Your task to perform on an android device: Search for dell alienware on bestbuy.com, select the first entry, and add it to the cart. Image 0: 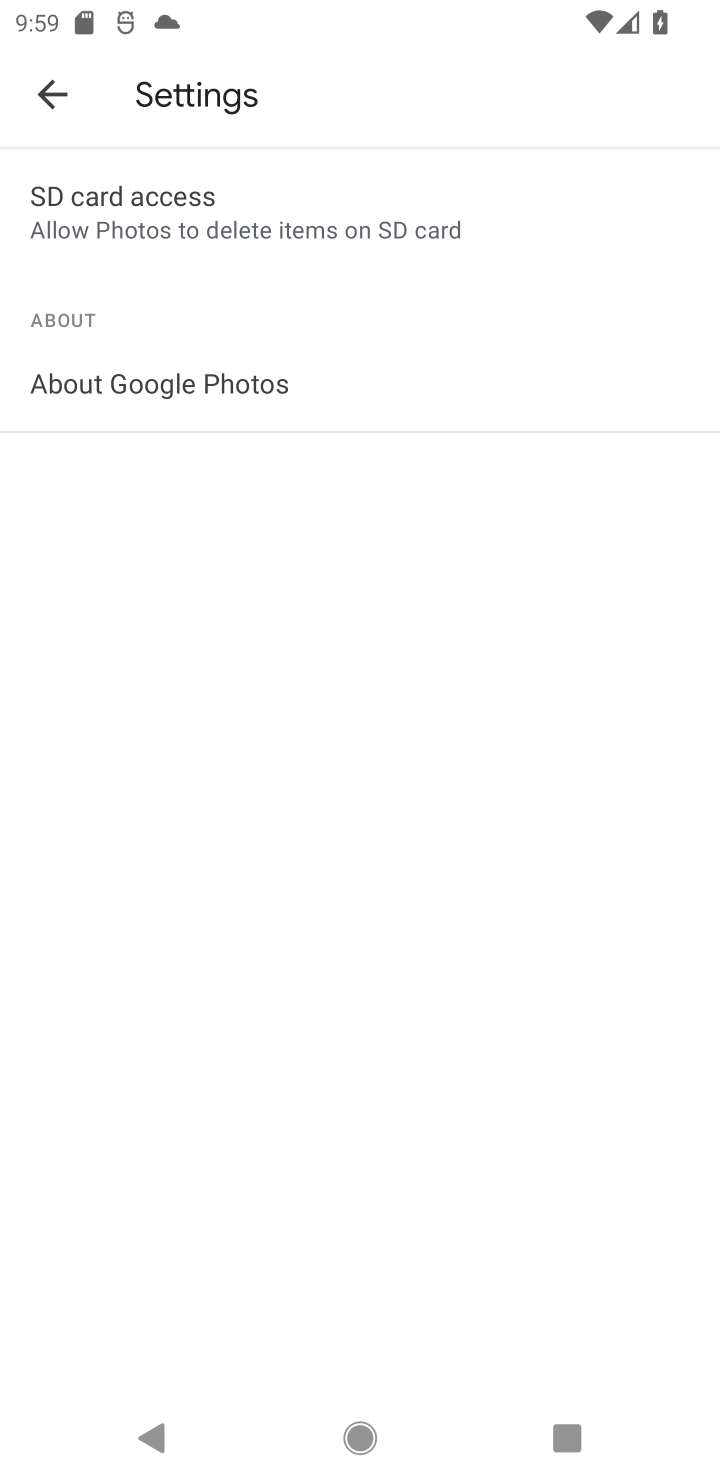
Step 0: press home button
Your task to perform on an android device: Search for dell alienware on bestbuy.com, select the first entry, and add it to the cart. Image 1: 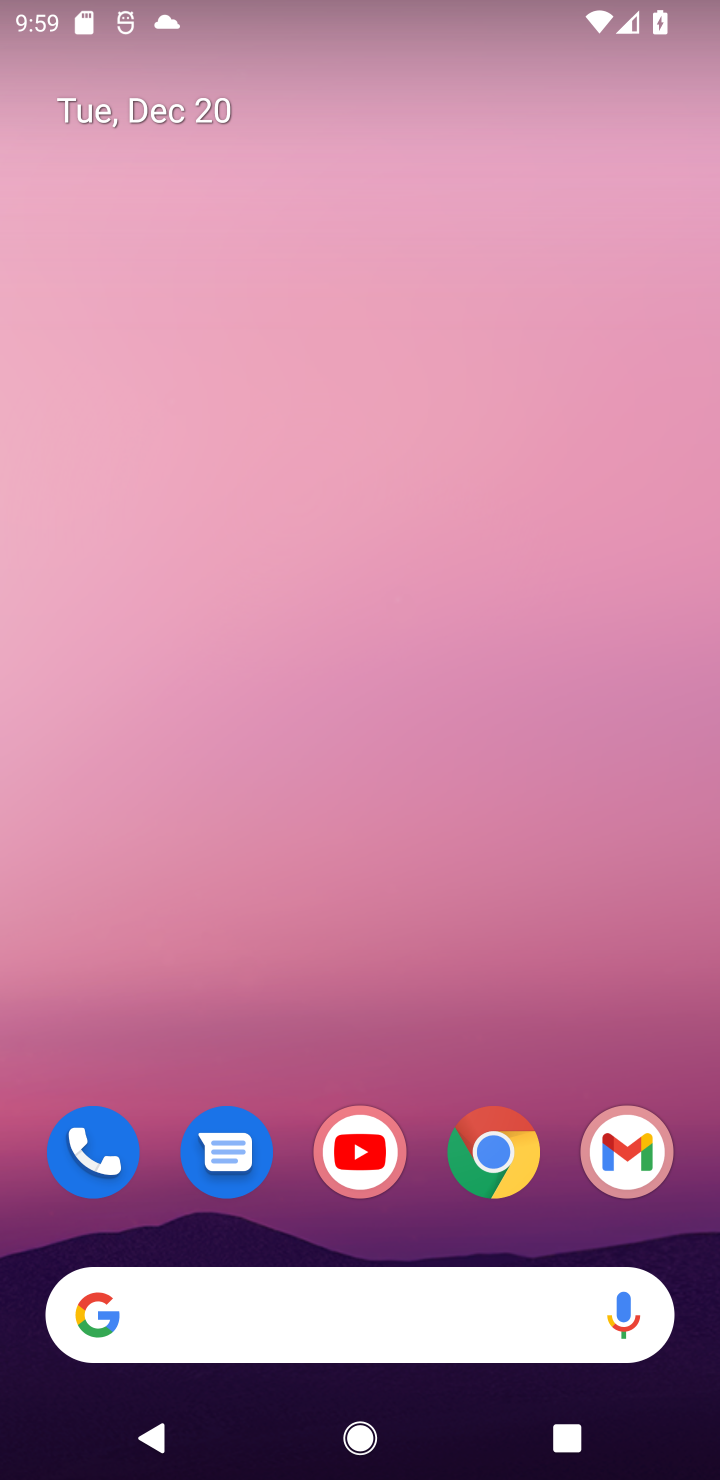
Step 1: click (468, 1132)
Your task to perform on an android device: Search for dell alienware on bestbuy.com, select the first entry, and add it to the cart. Image 2: 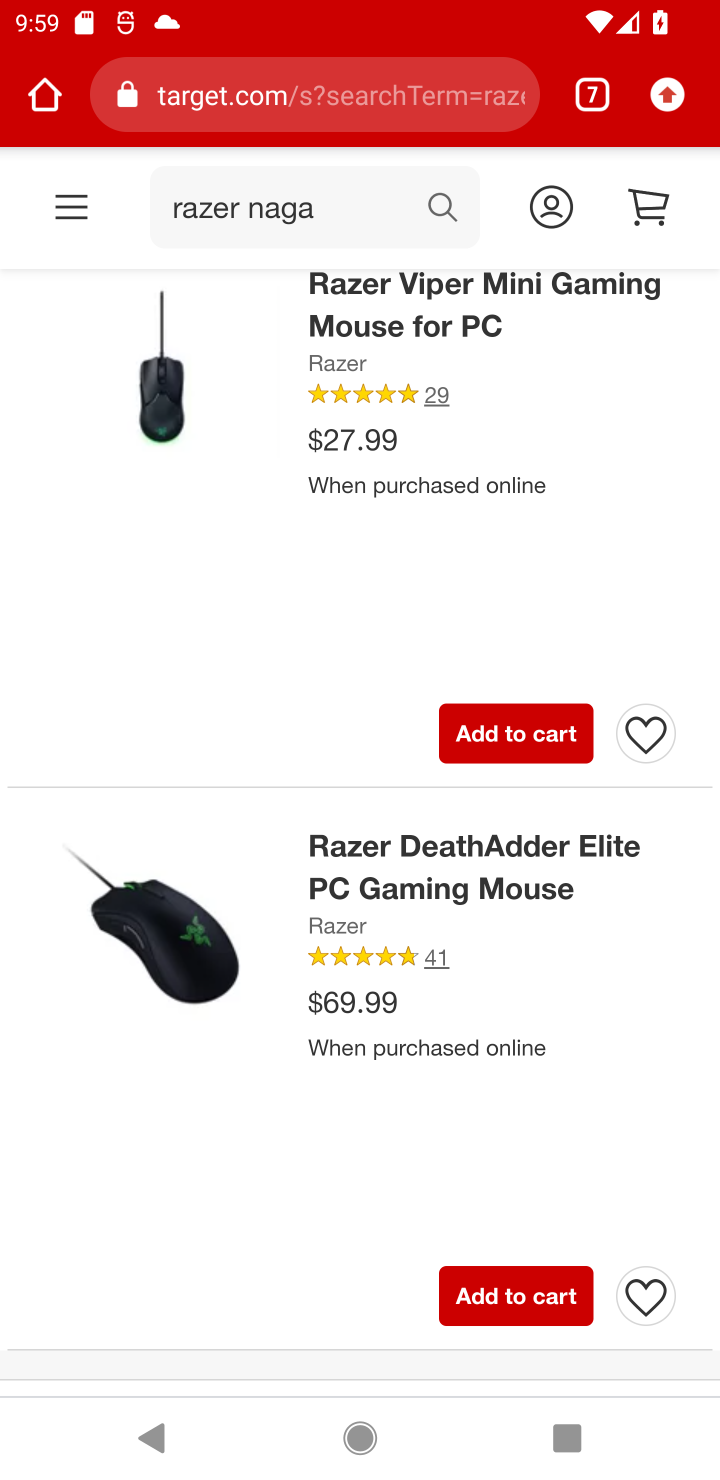
Step 2: click (599, 85)
Your task to perform on an android device: Search for dell alienware on bestbuy.com, select the first entry, and add it to the cart. Image 3: 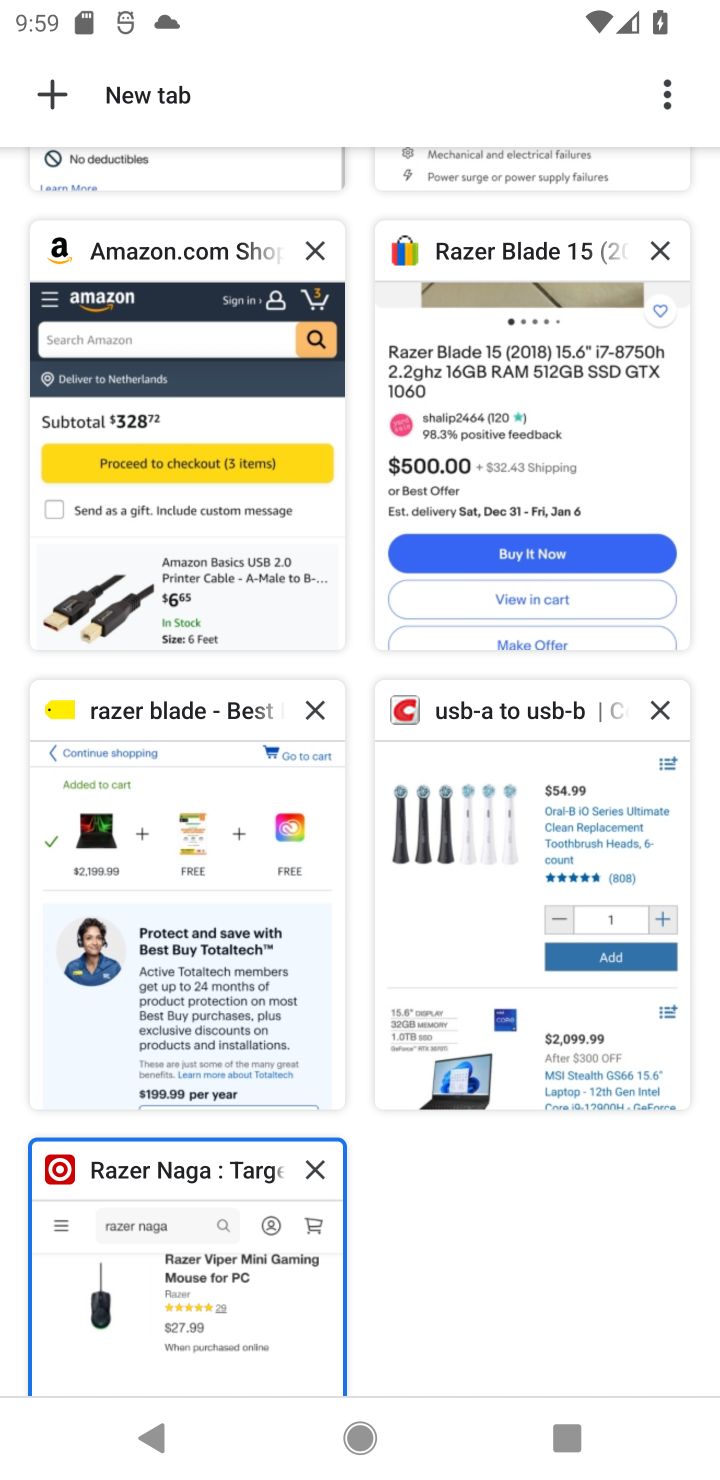
Step 3: click (218, 842)
Your task to perform on an android device: Search for dell alienware on bestbuy.com, select the first entry, and add it to the cart. Image 4: 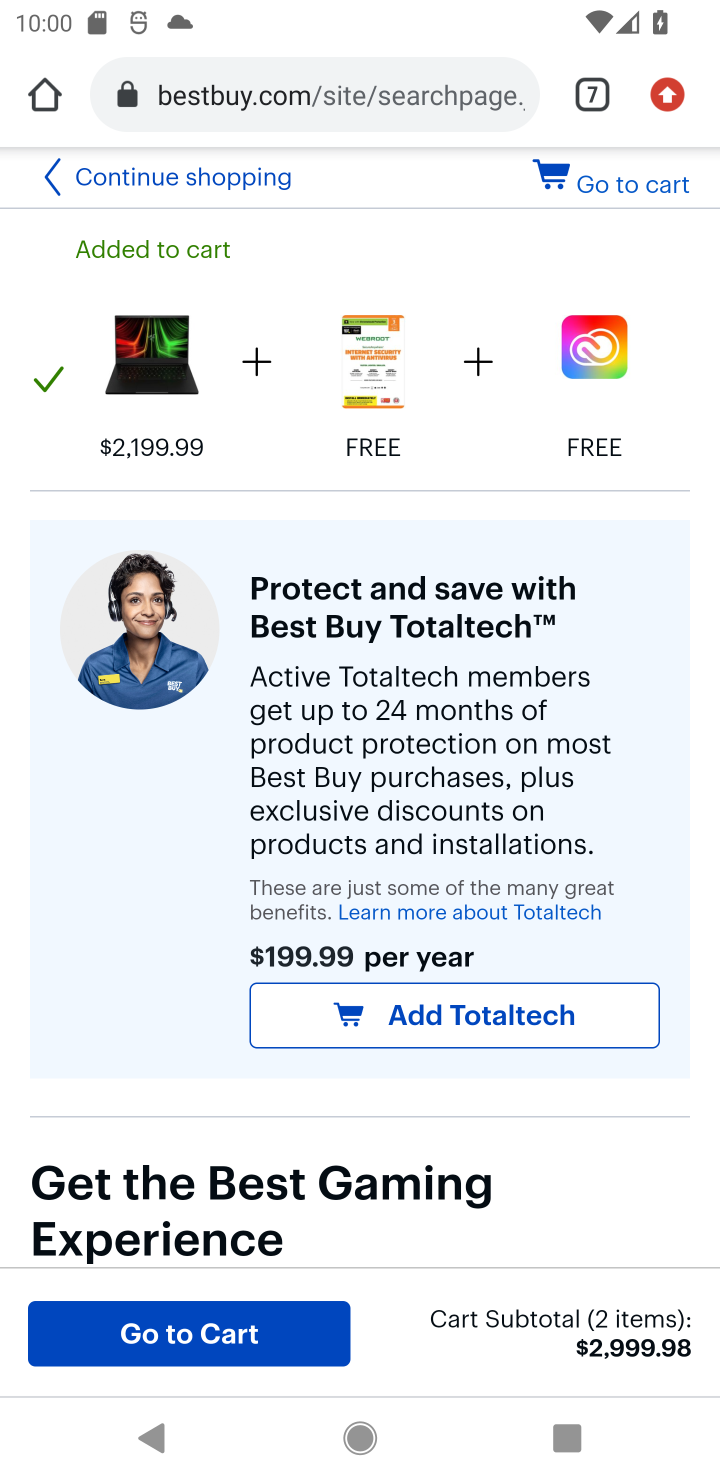
Step 4: click (263, 179)
Your task to perform on an android device: Search for dell alienware on bestbuy.com, select the first entry, and add it to the cart. Image 5: 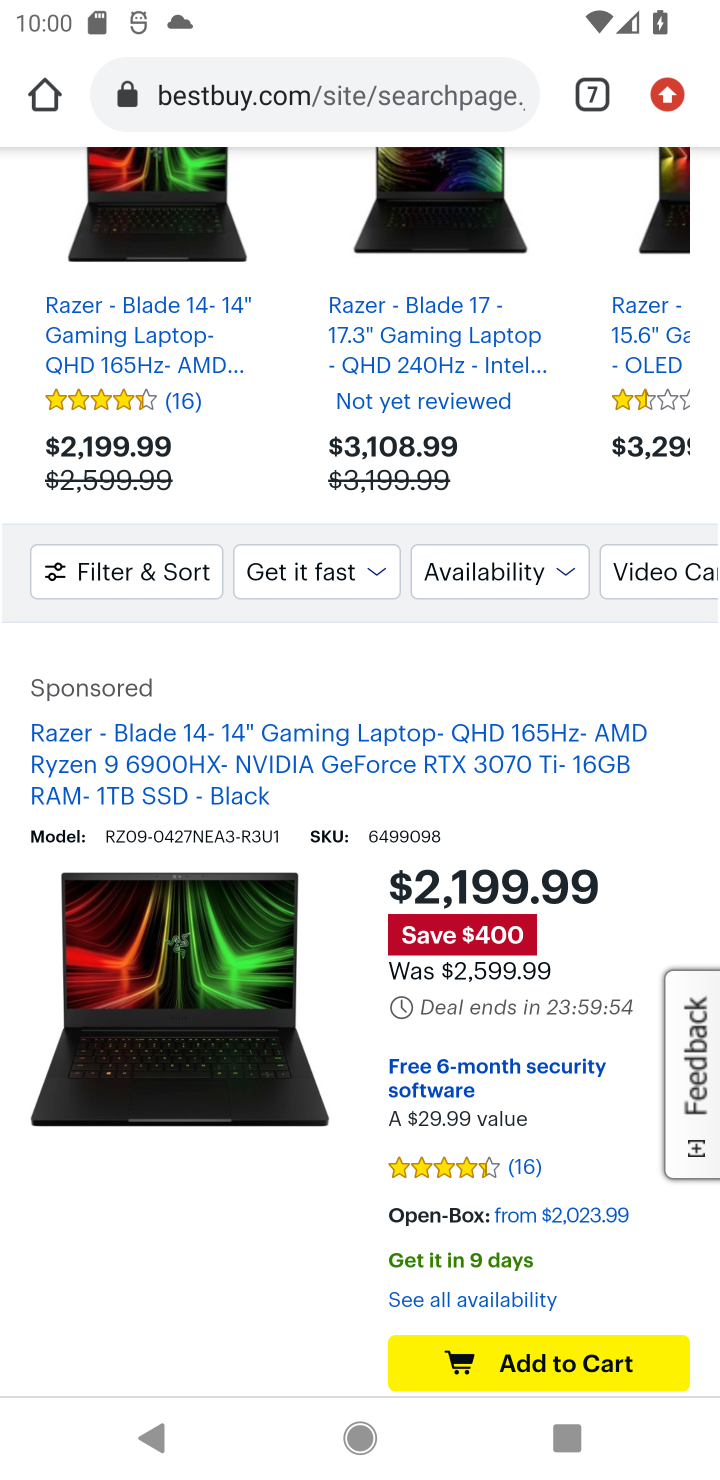
Step 5: drag from (438, 265) to (390, 1128)
Your task to perform on an android device: Search for dell alienware on bestbuy.com, select the first entry, and add it to the cart. Image 6: 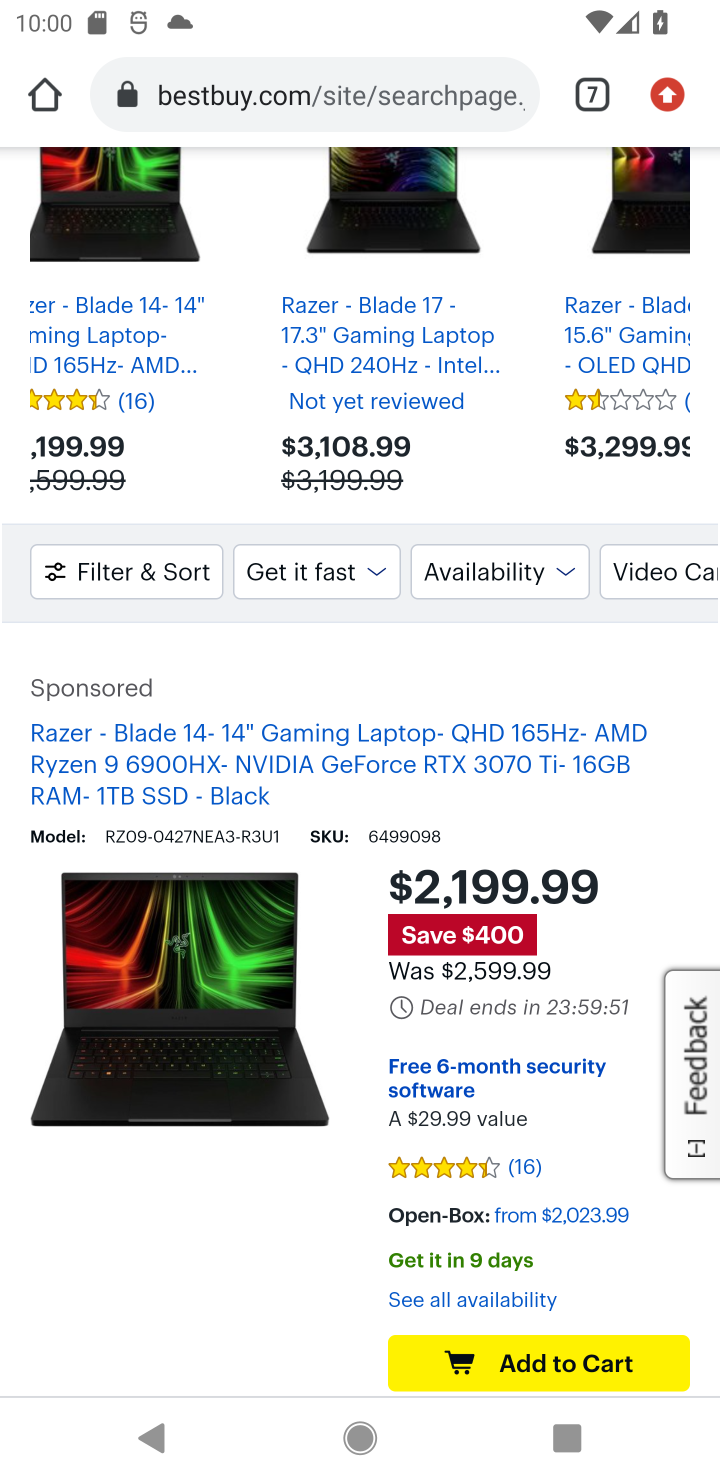
Step 6: drag from (417, 333) to (382, 1302)
Your task to perform on an android device: Search for dell alienware on bestbuy.com, select the first entry, and add it to the cart. Image 7: 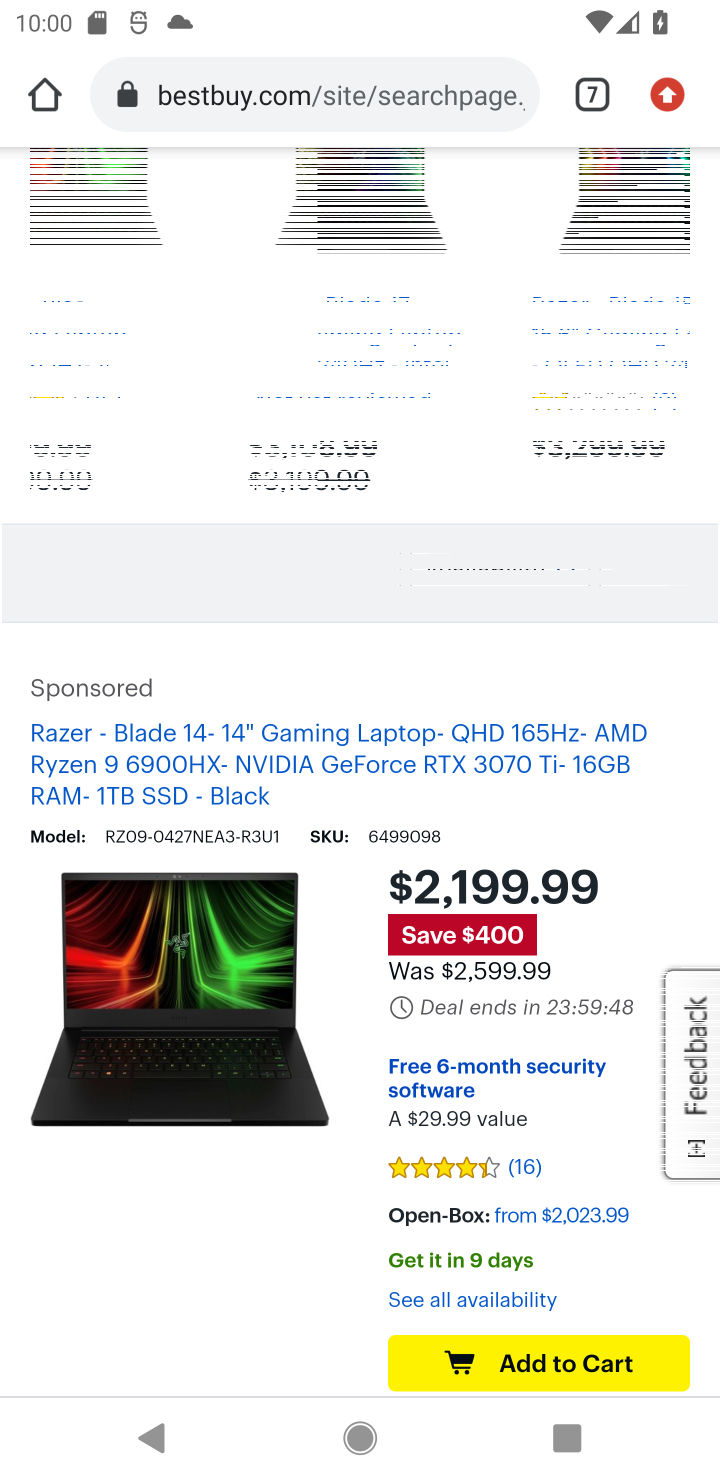
Step 7: drag from (493, 297) to (410, 1455)
Your task to perform on an android device: Search for dell alienware on bestbuy.com, select the first entry, and add it to the cart. Image 8: 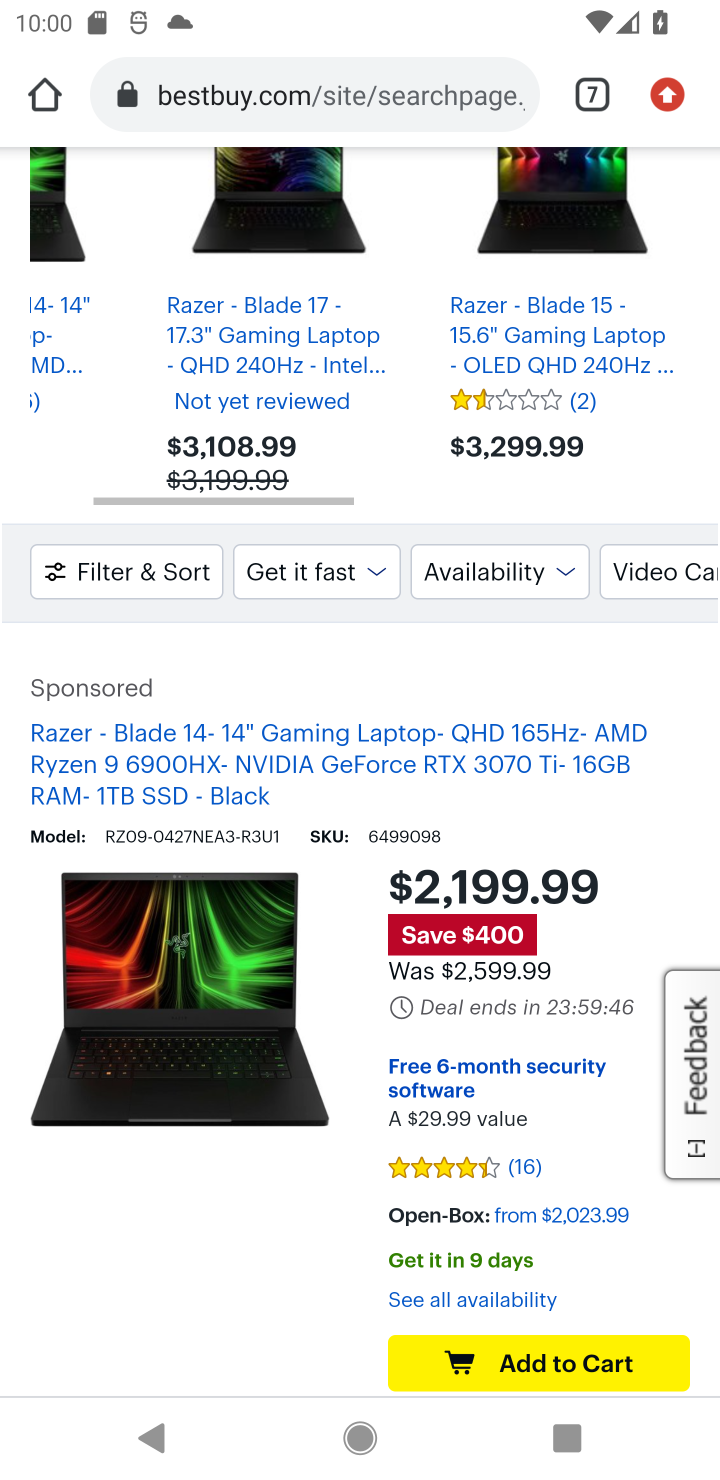
Step 8: drag from (418, 327) to (386, 1250)
Your task to perform on an android device: Search for dell alienware on bestbuy.com, select the first entry, and add it to the cart. Image 9: 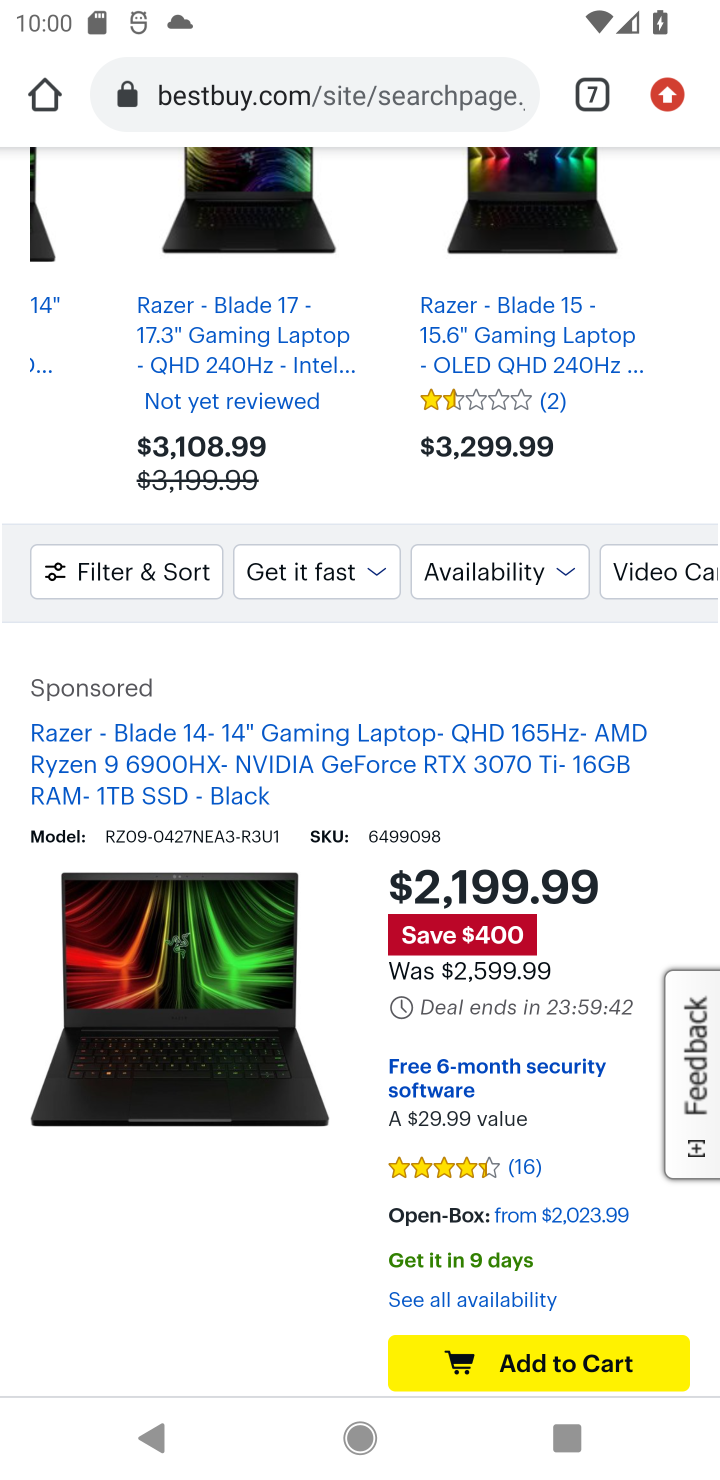
Step 9: drag from (625, 308) to (679, 876)
Your task to perform on an android device: Search for dell alienware on bestbuy.com, select the first entry, and add it to the cart. Image 10: 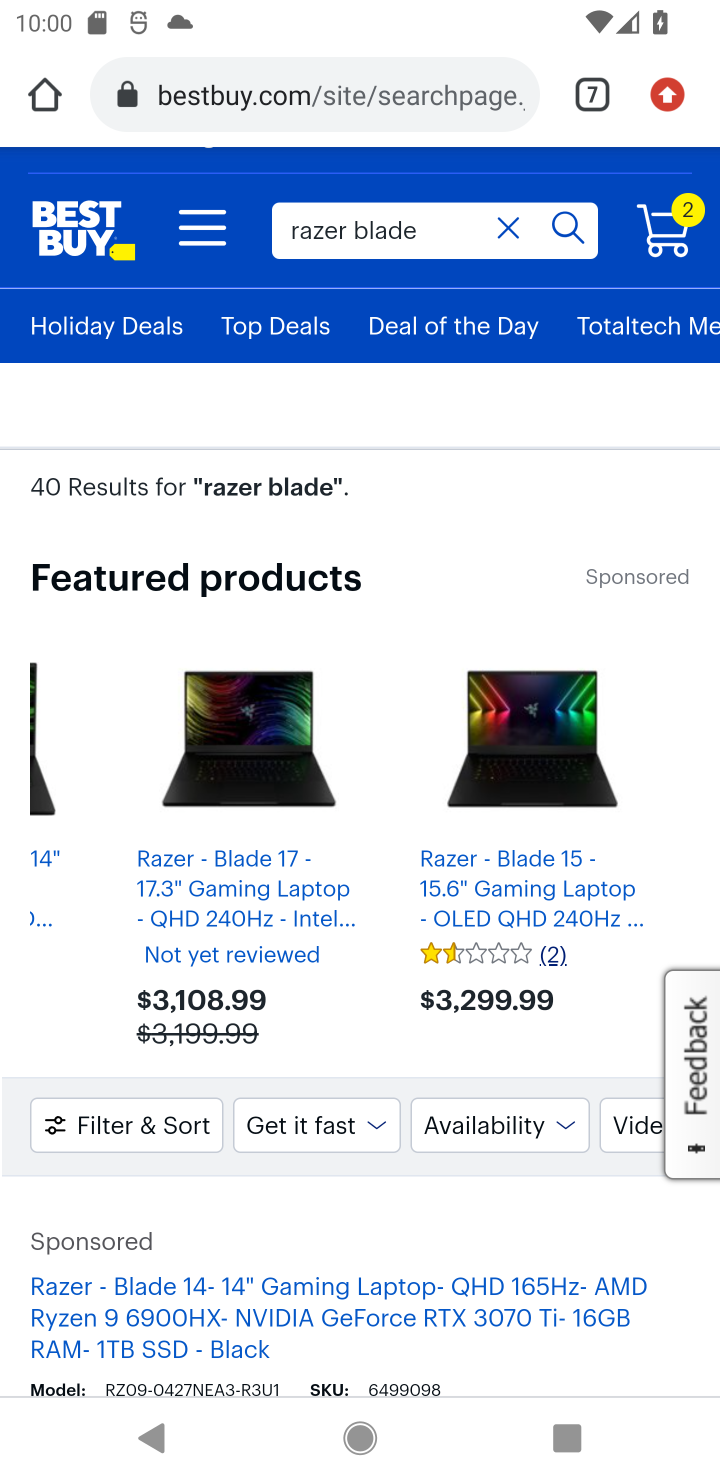
Step 10: click (511, 221)
Your task to perform on an android device: Search for dell alienware on bestbuy.com, select the first entry, and add it to the cart. Image 11: 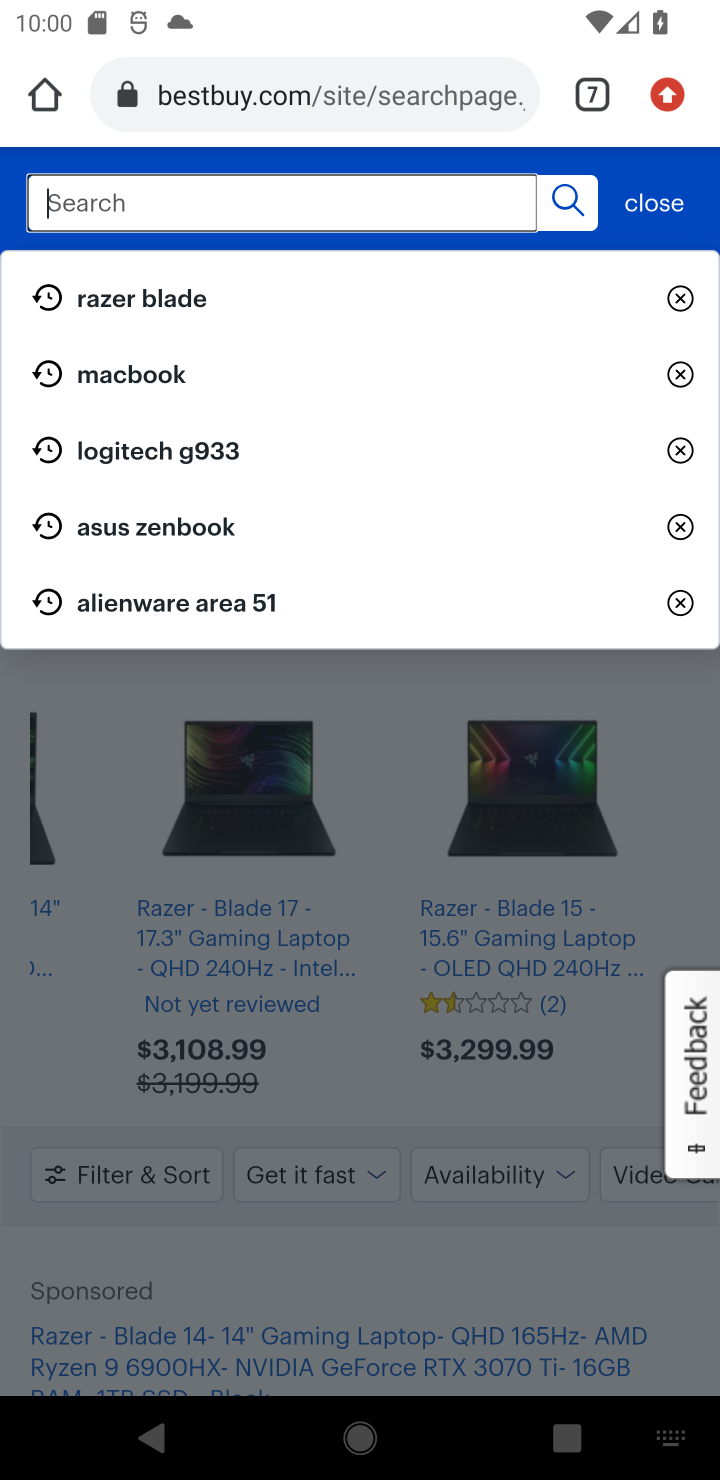
Step 11: type "dell alienware"
Your task to perform on an android device: Search for dell alienware on bestbuy.com, select the first entry, and add it to the cart. Image 12: 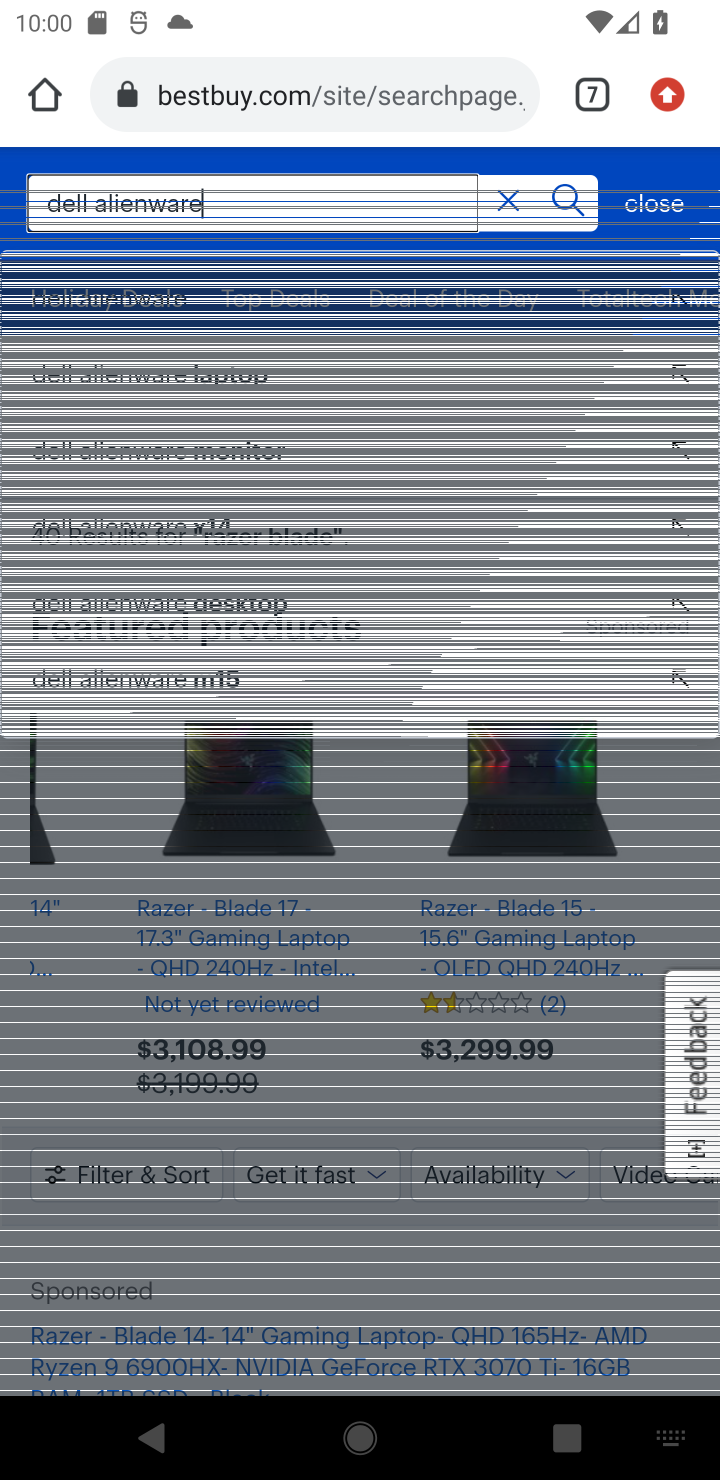
Step 12: click (563, 203)
Your task to perform on an android device: Search for dell alienware on bestbuy.com, select the first entry, and add it to the cart. Image 13: 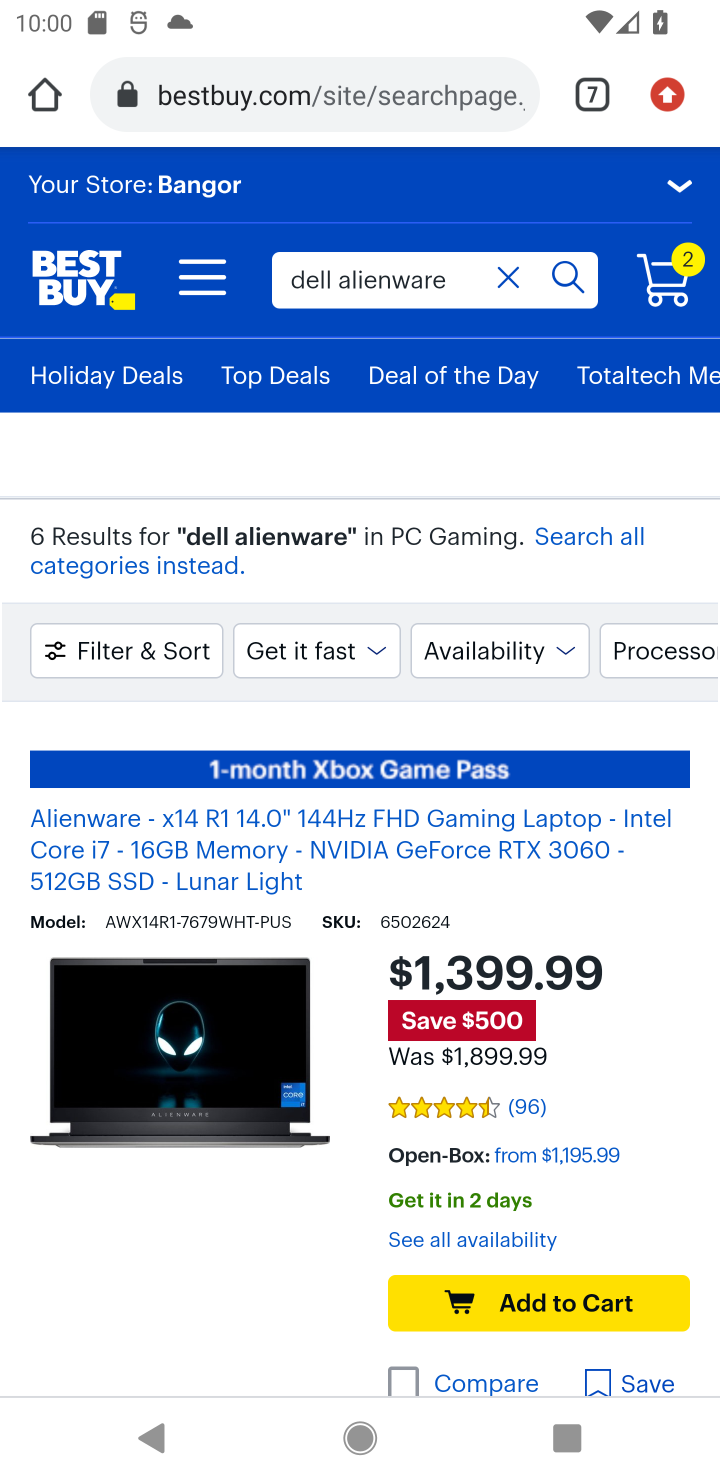
Step 13: click (536, 1298)
Your task to perform on an android device: Search for dell alienware on bestbuy.com, select the first entry, and add it to the cart. Image 14: 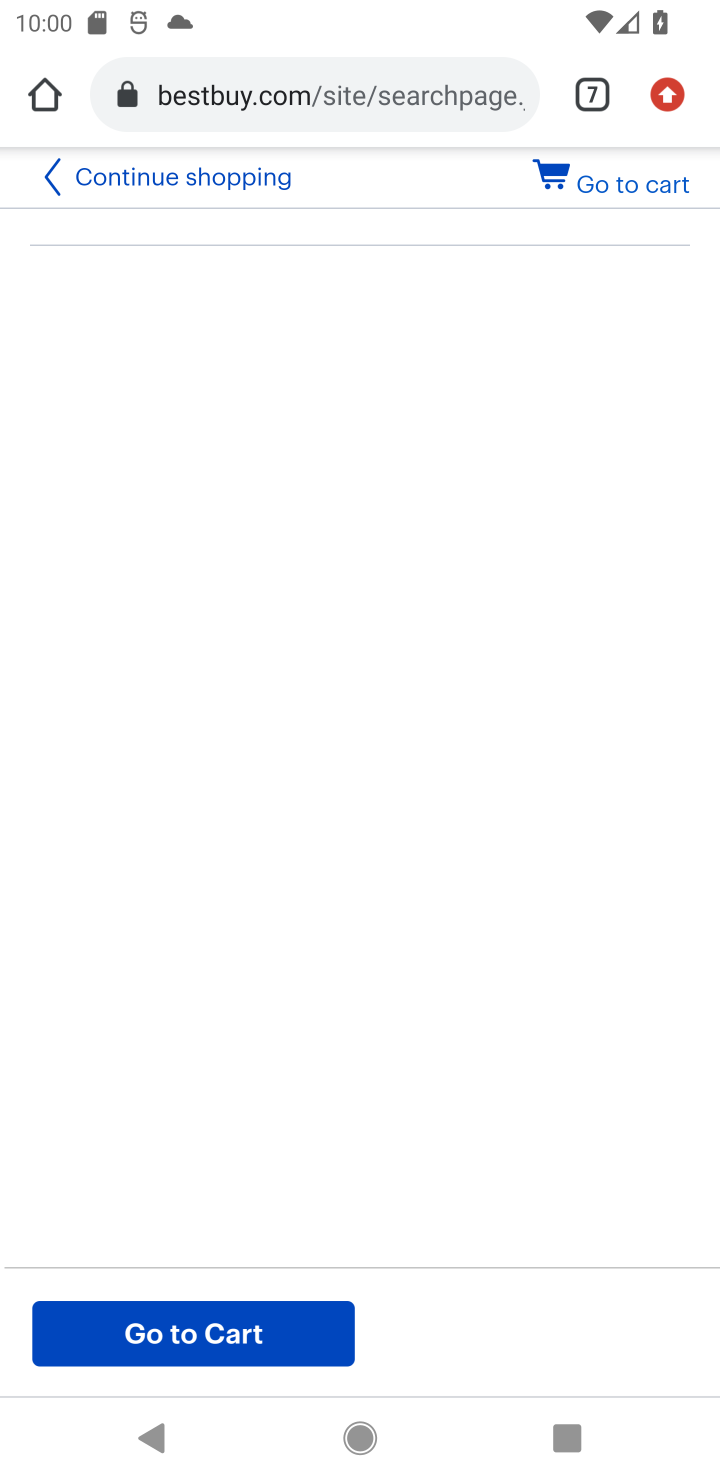
Step 14: task complete